Your task to perform on an android device: turn on translation in the chrome app Image 0: 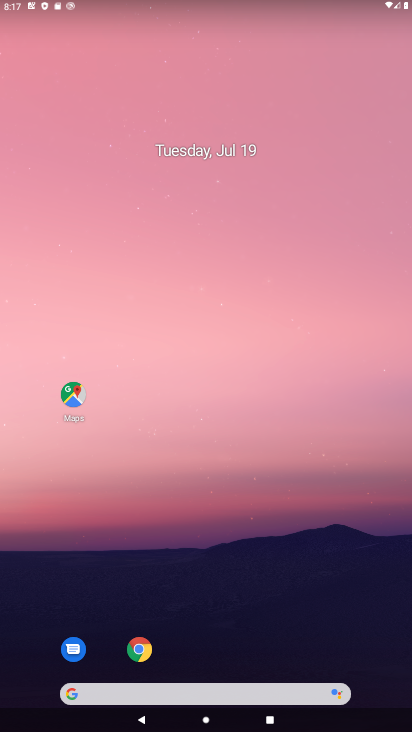
Step 0: click (132, 646)
Your task to perform on an android device: turn on translation in the chrome app Image 1: 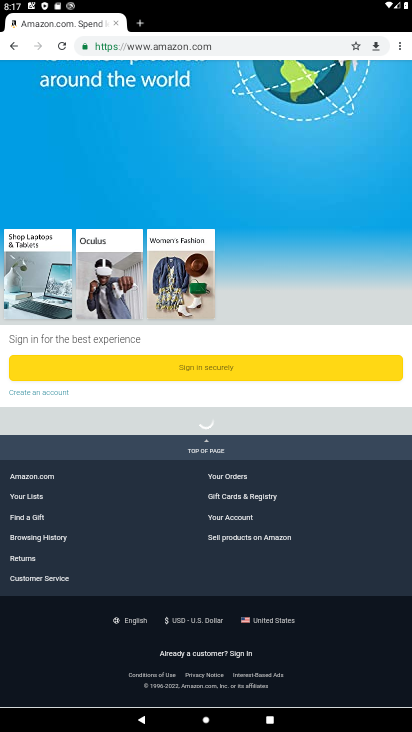
Step 1: click (401, 43)
Your task to perform on an android device: turn on translation in the chrome app Image 2: 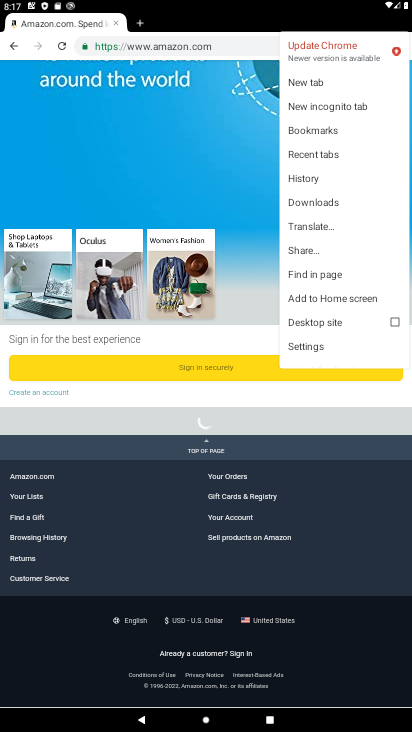
Step 2: click (330, 344)
Your task to perform on an android device: turn on translation in the chrome app Image 3: 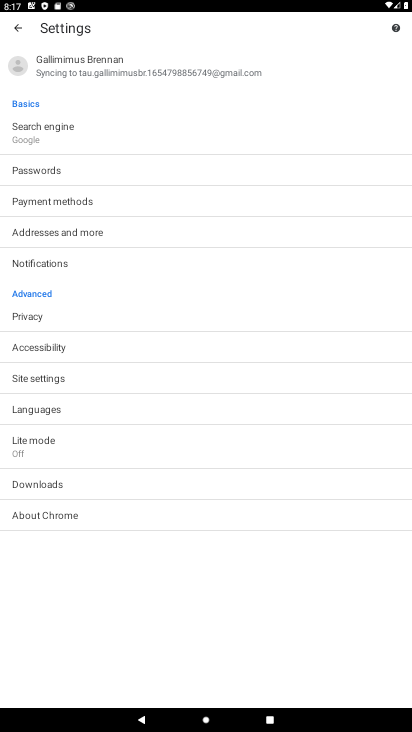
Step 3: click (71, 405)
Your task to perform on an android device: turn on translation in the chrome app Image 4: 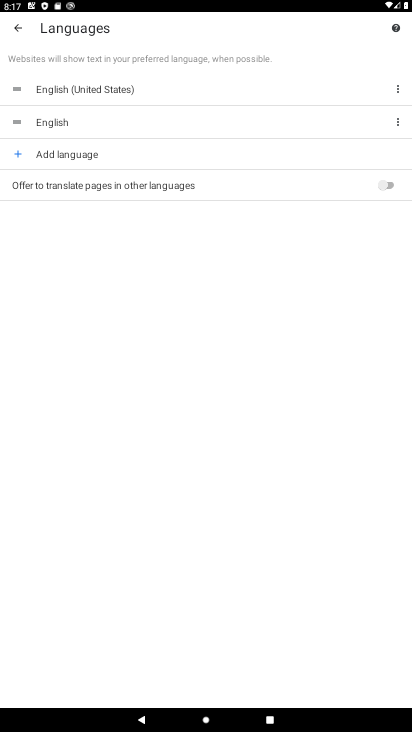
Step 4: click (392, 189)
Your task to perform on an android device: turn on translation in the chrome app Image 5: 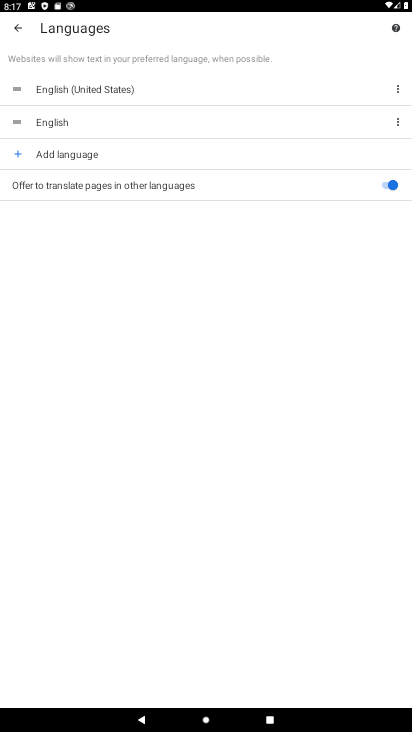
Step 5: task complete